Your task to perform on an android device: Go to Android settings Image 0: 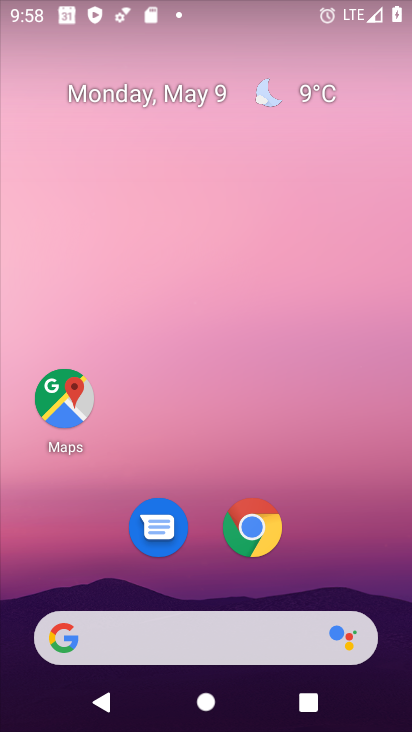
Step 0: drag from (394, 655) to (375, 313)
Your task to perform on an android device: Go to Android settings Image 1: 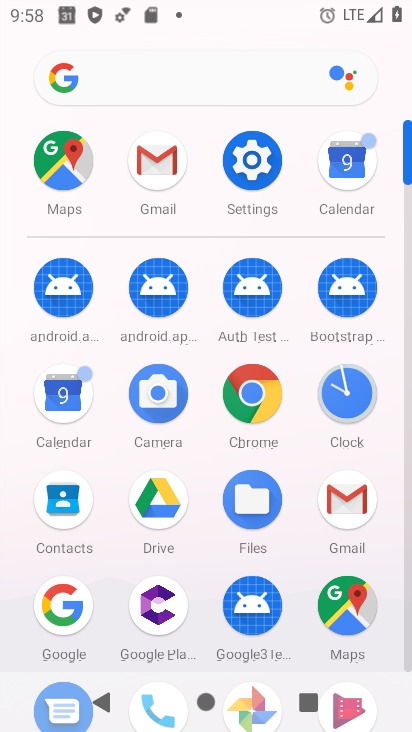
Step 1: click (409, 648)
Your task to perform on an android device: Go to Android settings Image 2: 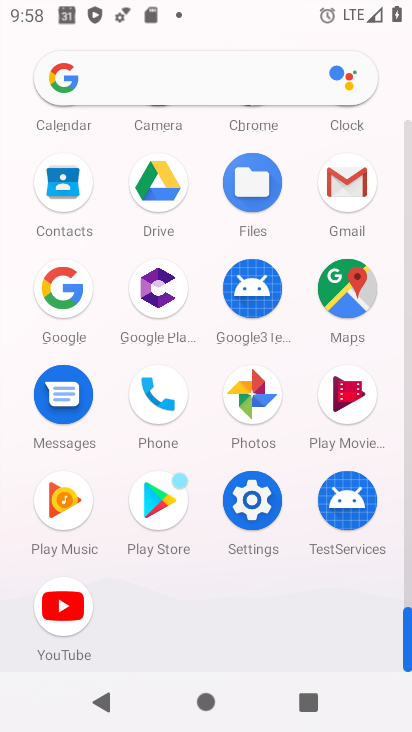
Step 2: click (253, 497)
Your task to perform on an android device: Go to Android settings Image 3: 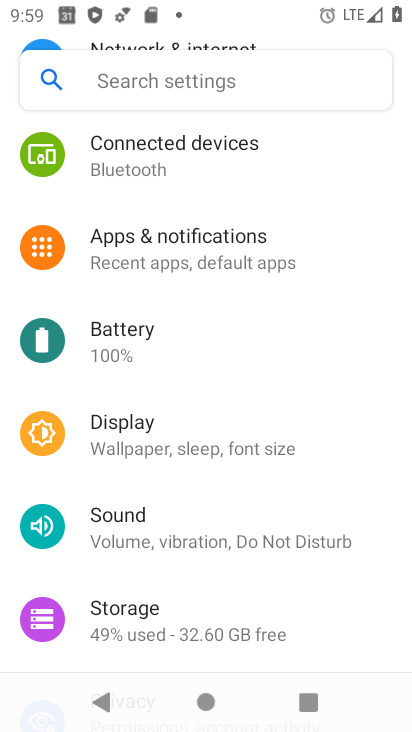
Step 3: drag from (312, 618) to (338, 177)
Your task to perform on an android device: Go to Android settings Image 4: 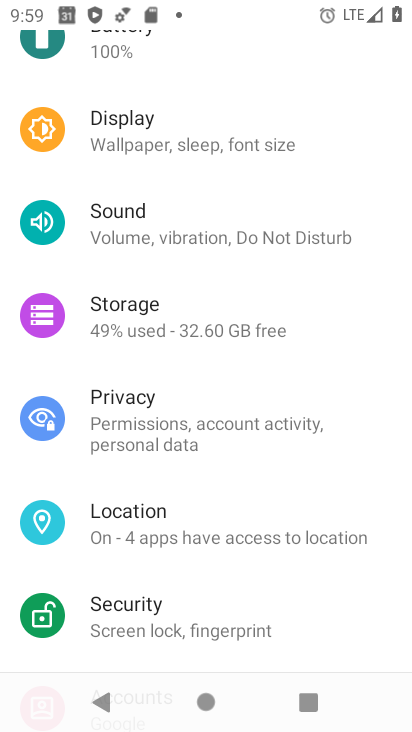
Step 4: drag from (326, 594) to (348, 181)
Your task to perform on an android device: Go to Android settings Image 5: 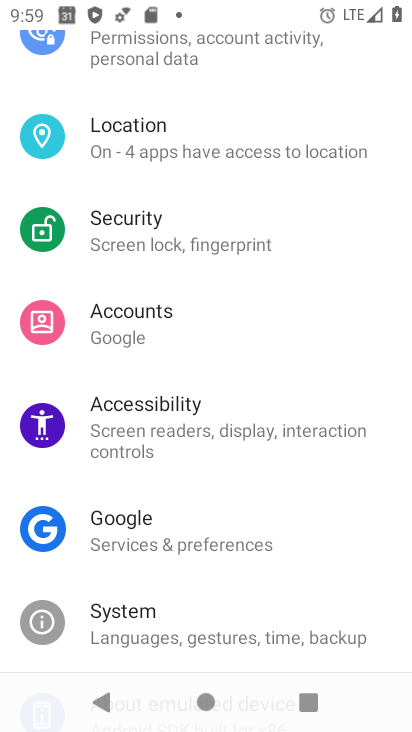
Step 5: drag from (321, 604) to (336, 243)
Your task to perform on an android device: Go to Android settings Image 6: 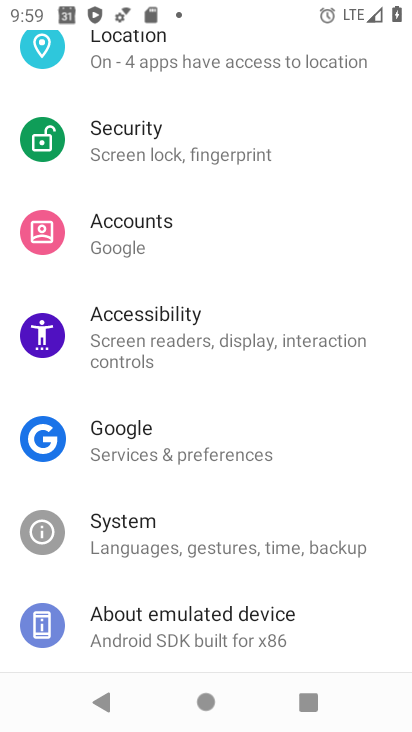
Step 6: click (144, 621)
Your task to perform on an android device: Go to Android settings Image 7: 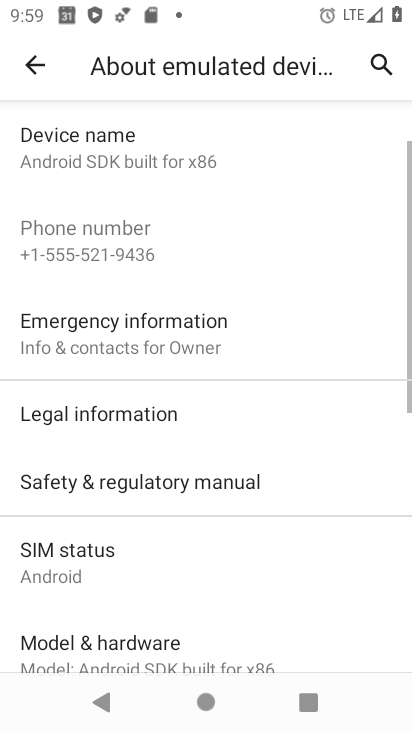
Step 7: drag from (284, 566) to (315, 190)
Your task to perform on an android device: Go to Android settings Image 8: 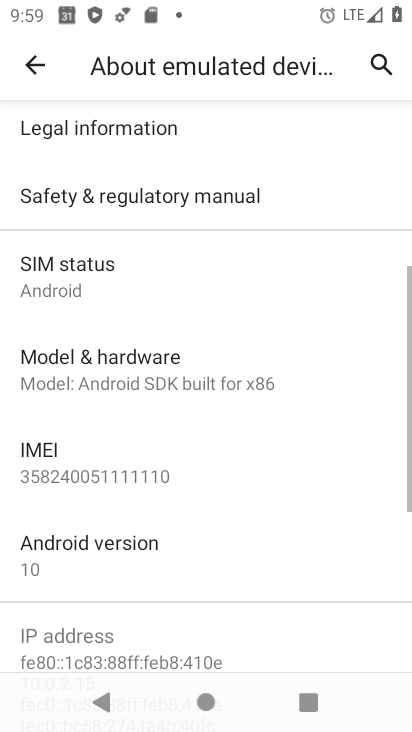
Step 8: click (315, 446)
Your task to perform on an android device: Go to Android settings Image 9: 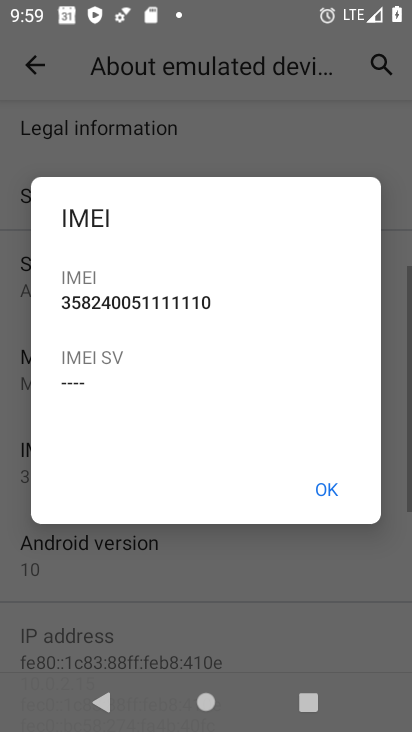
Step 9: click (328, 490)
Your task to perform on an android device: Go to Android settings Image 10: 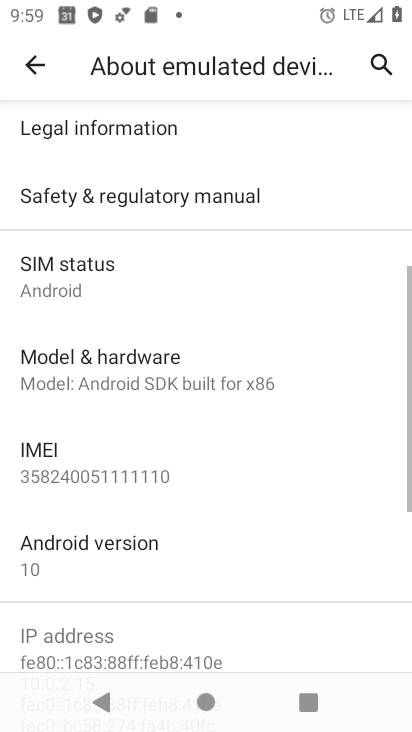
Step 10: task complete